Your task to perform on an android device: Go to Amazon Image 0: 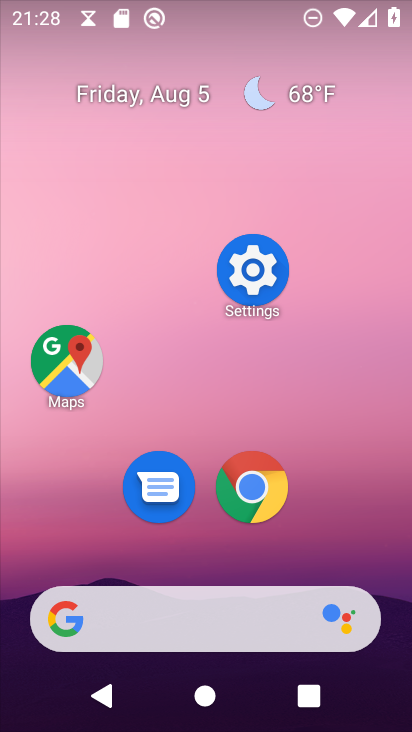
Step 0: click (258, 488)
Your task to perform on an android device: Go to Amazon Image 1: 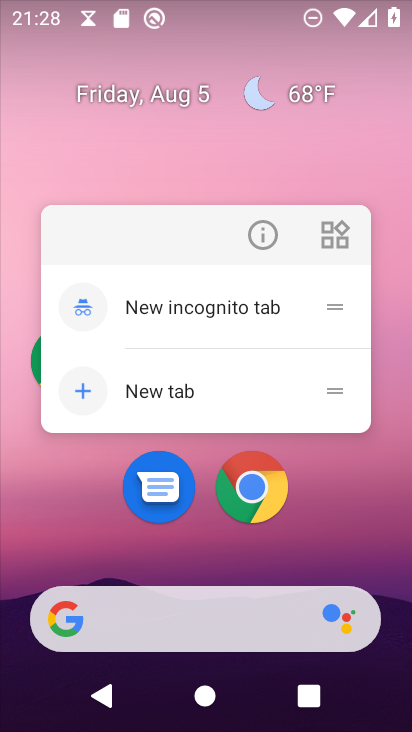
Step 1: click (254, 492)
Your task to perform on an android device: Go to Amazon Image 2: 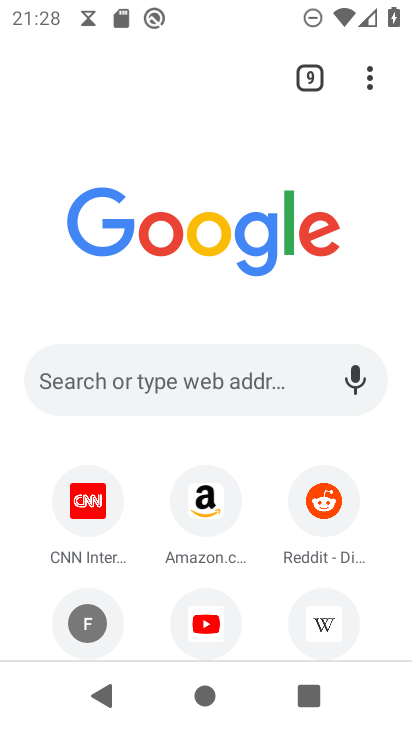
Step 2: click (206, 499)
Your task to perform on an android device: Go to Amazon Image 3: 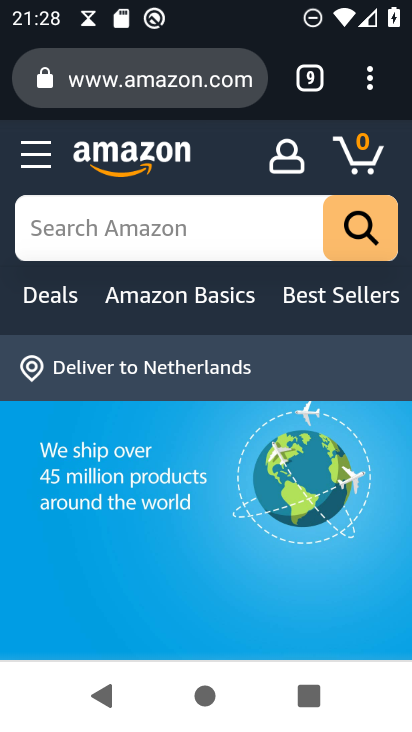
Step 3: task complete